Your task to perform on an android device: check the backup settings in the google photos Image 0: 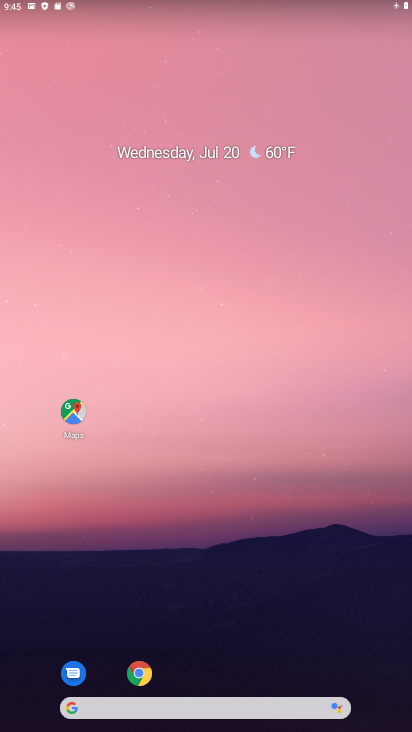
Step 0: drag from (227, 663) to (197, 51)
Your task to perform on an android device: check the backup settings in the google photos Image 1: 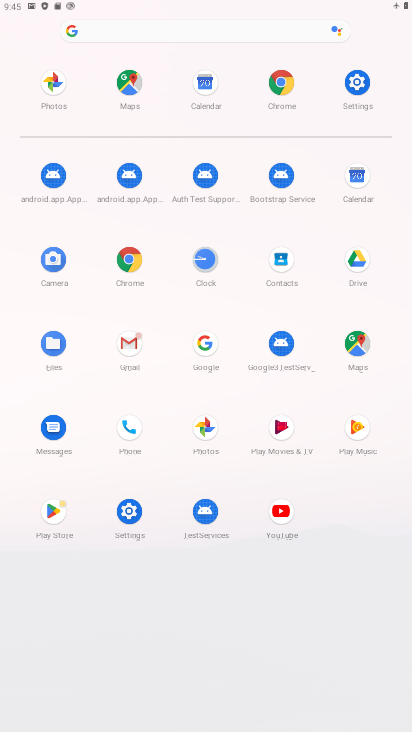
Step 1: click (204, 442)
Your task to perform on an android device: check the backup settings in the google photos Image 2: 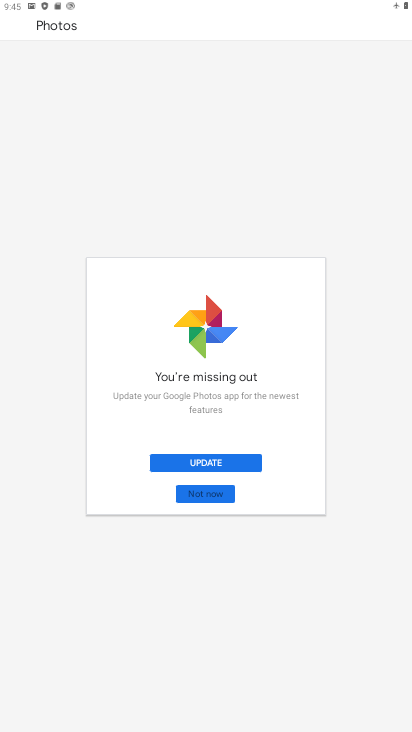
Step 2: click (219, 506)
Your task to perform on an android device: check the backup settings in the google photos Image 3: 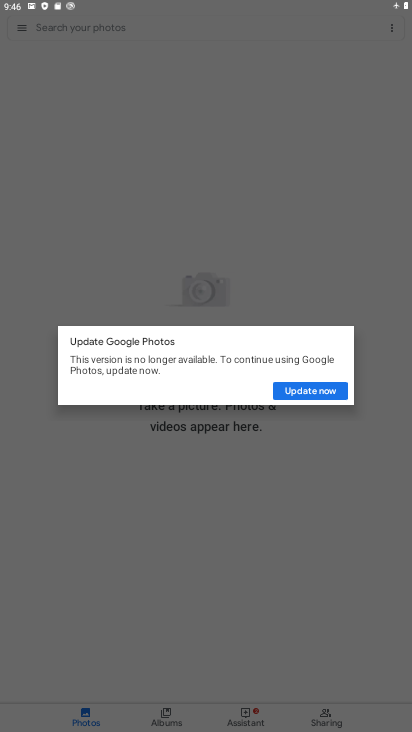
Step 3: click (294, 394)
Your task to perform on an android device: check the backup settings in the google photos Image 4: 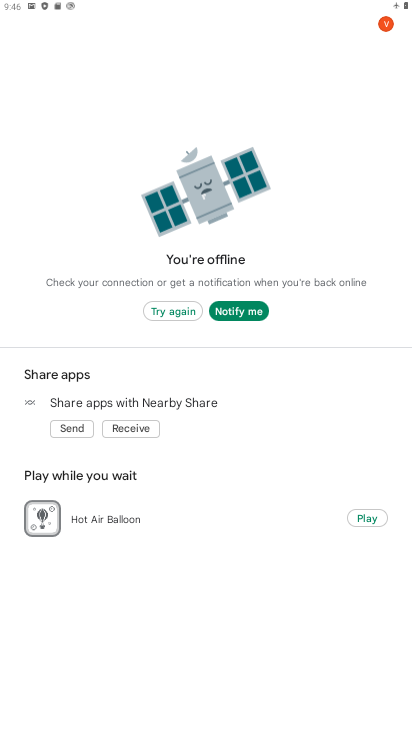
Step 4: press back button
Your task to perform on an android device: check the backup settings in the google photos Image 5: 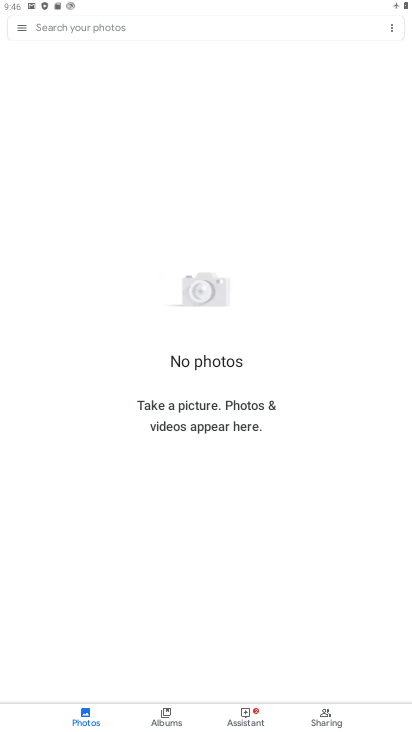
Step 5: click (20, 29)
Your task to perform on an android device: check the backup settings in the google photos Image 6: 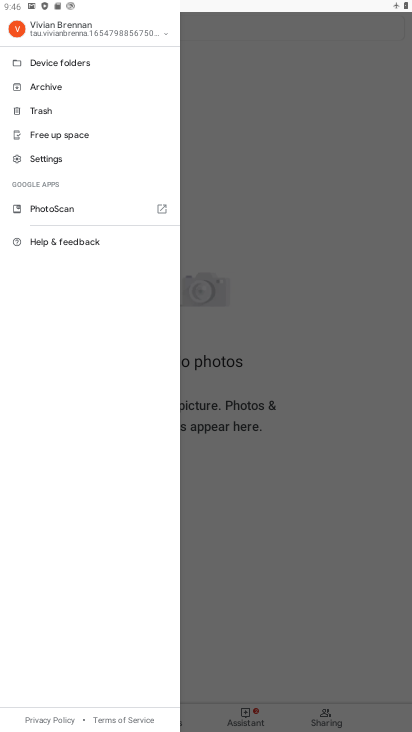
Step 6: click (54, 159)
Your task to perform on an android device: check the backup settings in the google photos Image 7: 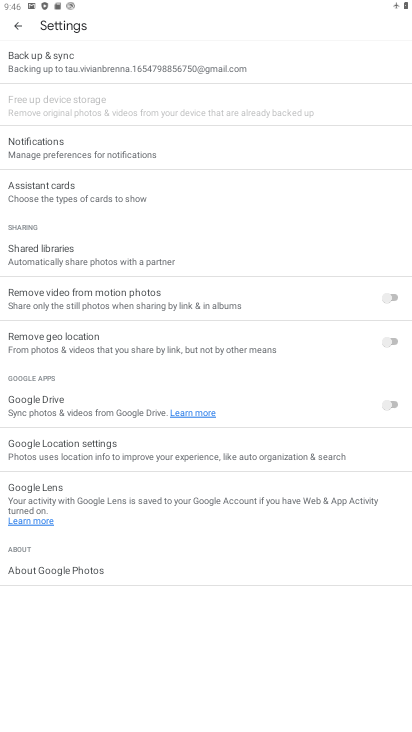
Step 7: click (65, 66)
Your task to perform on an android device: check the backup settings in the google photos Image 8: 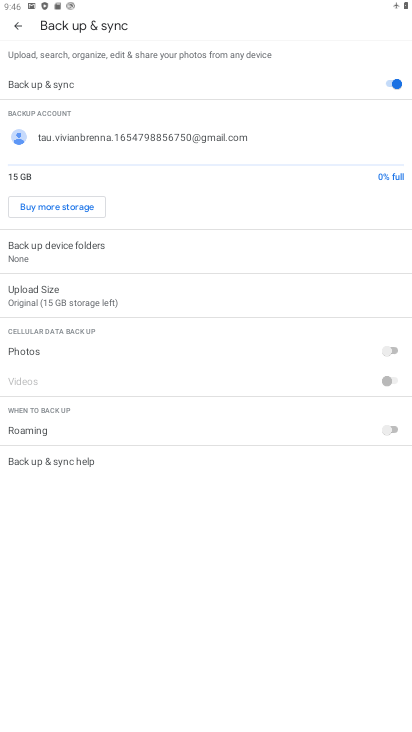
Step 8: task complete